Your task to perform on an android device: see sites visited before in the chrome app Image 0: 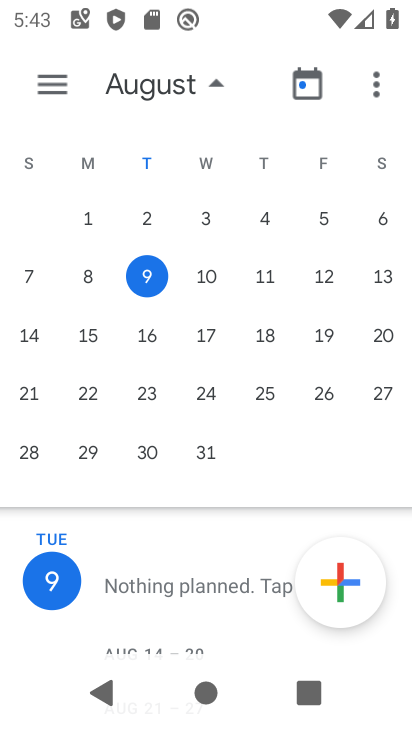
Step 0: click (150, 89)
Your task to perform on an android device: see sites visited before in the chrome app Image 1: 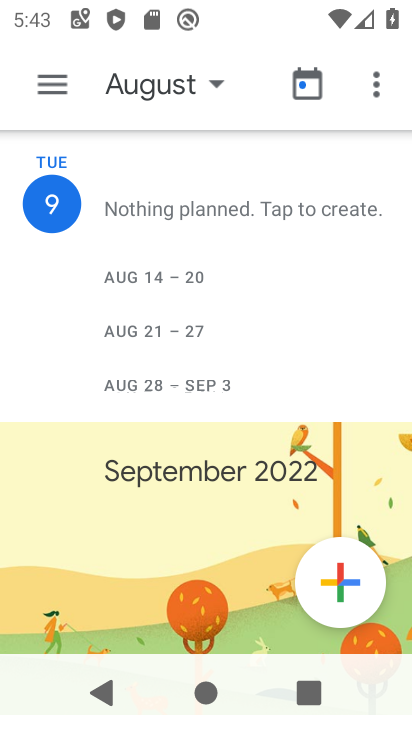
Step 1: click (44, 98)
Your task to perform on an android device: see sites visited before in the chrome app Image 2: 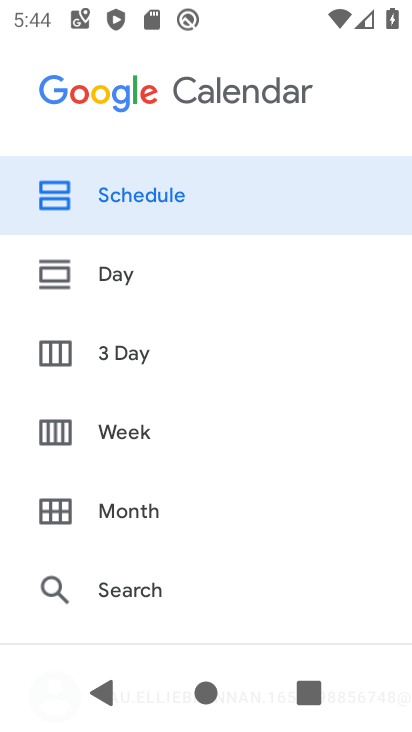
Step 2: drag from (168, 557) to (219, 261)
Your task to perform on an android device: see sites visited before in the chrome app Image 3: 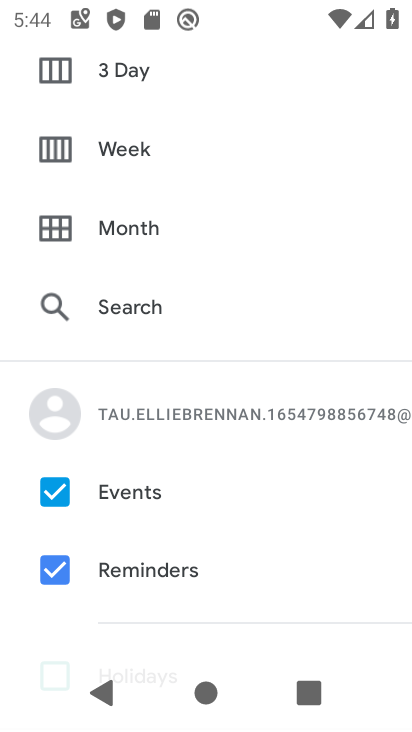
Step 3: drag from (153, 180) to (182, 637)
Your task to perform on an android device: see sites visited before in the chrome app Image 4: 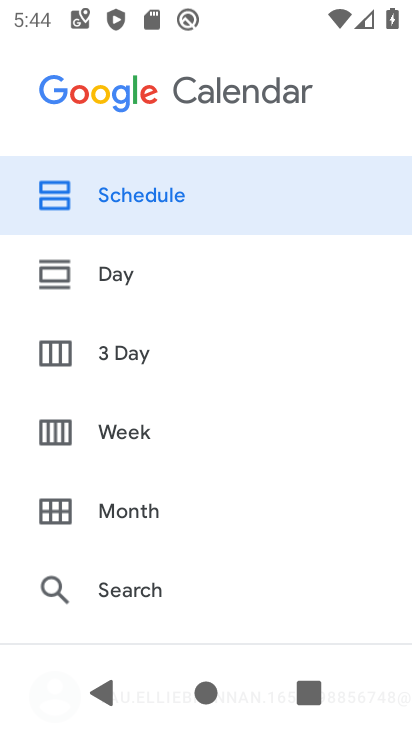
Step 4: click (165, 267)
Your task to perform on an android device: see sites visited before in the chrome app Image 5: 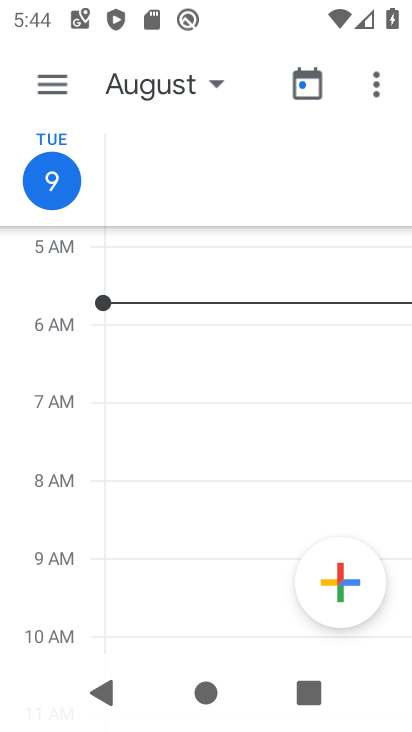
Step 5: press home button
Your task to perform on an android device: see sites visited before in the chrome app Image 6: 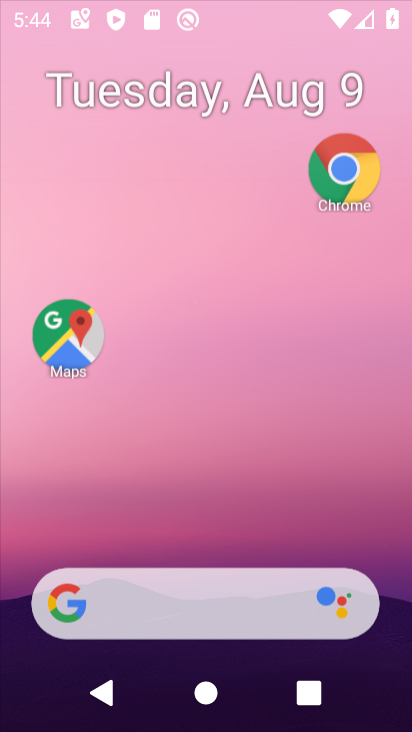
Step 6: drag from (209, 571) to (316, 41)
Your task to perform on an android device: see sites visited before in the chrome app Image 7: 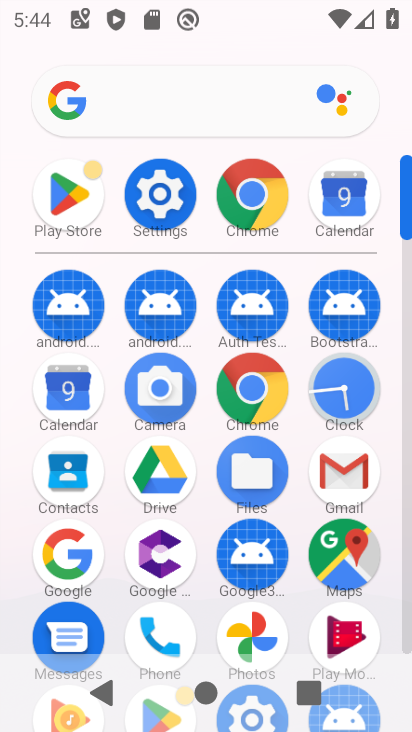
Step 7: click (250, 387)
Your task to perform on an android device: see sites visited before in the chrome app Image 8: 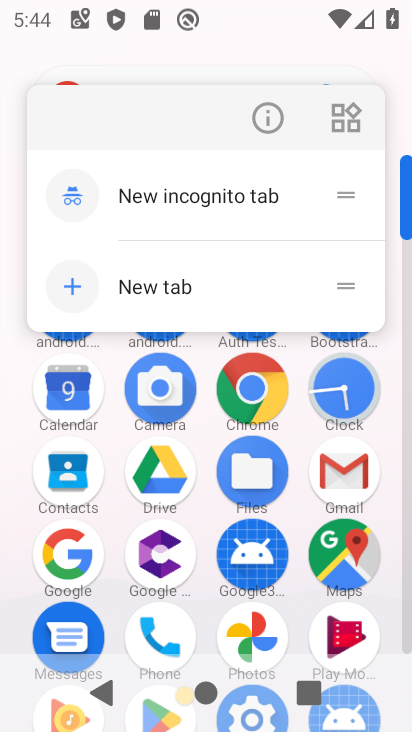
Step 8: click (246, 113)
Your task to perform on an android device: see sites visited before in the chrome app Image 9: 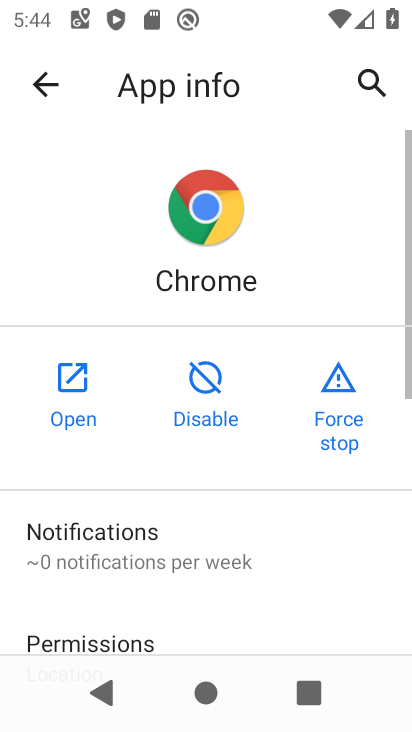
Step 9: click (73, 403)
Your task to perform on an android device: see sites visited before in the chrome app Image 10: 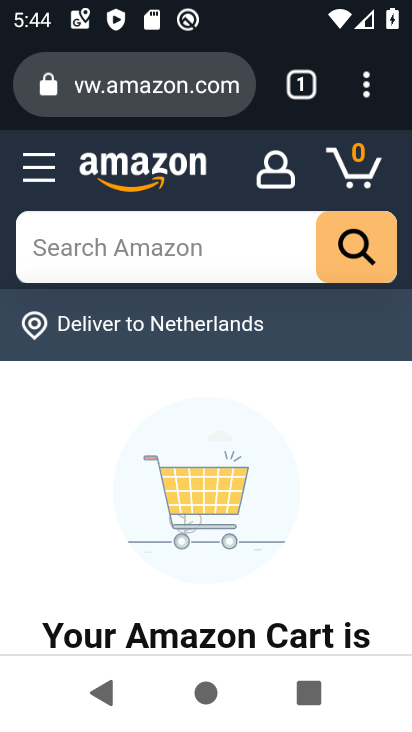
Step 10: drag from (221, 166) to (285, 520)
Your task to perform on an android device: see sites visited before in the chrome app Image 11: 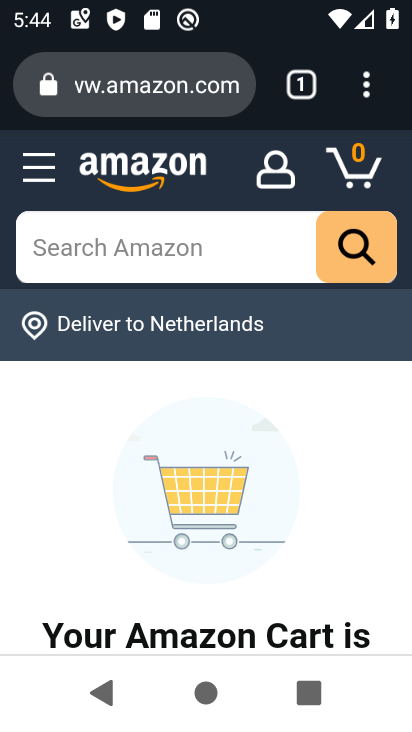
Step 11: drag from (367, 90) to (86, 513)
Your task to perform on an android device: see sites visited before in the chrome app Image 12: 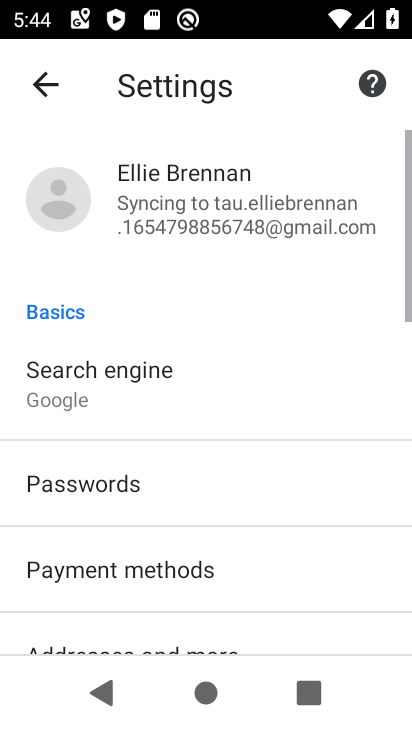
Step 12: drag from (183, 560) to (237, 112)
Your task to perform on an android device: see sites visited before in the chrome app Image 13: 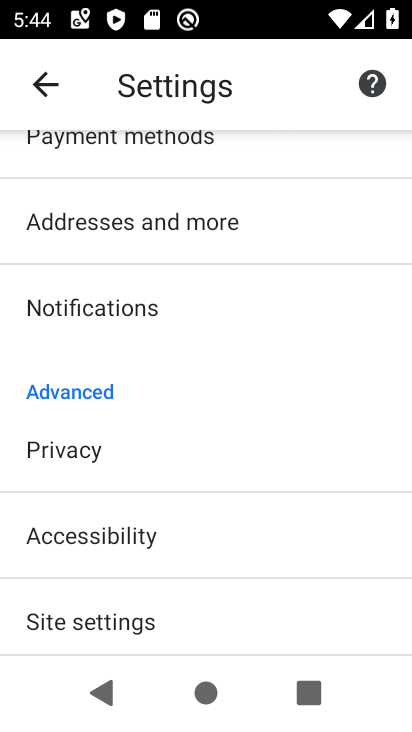
Step 13: drag from (140, 573) to (228, 247)
Your task to perform on an android device: see sites visited before in the chrome app Image 14: 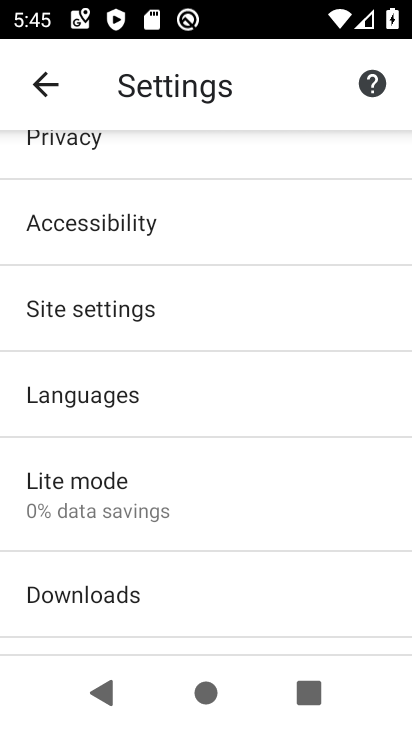
Step 14: click (14, 51)
Your task to perform on an android device: see sites visited before in the chrome app Image 15: 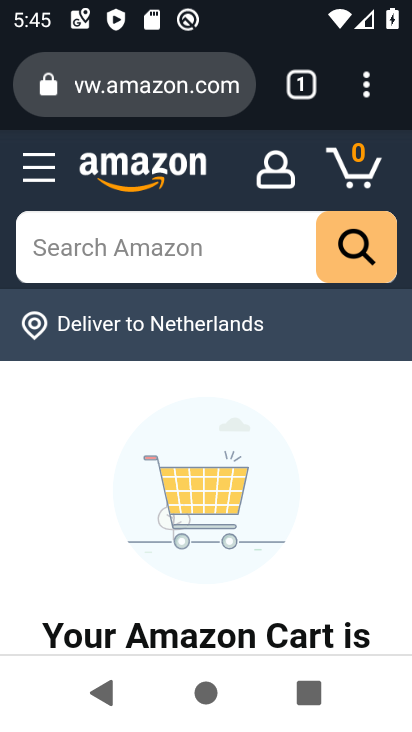
Step 15: task complete